Your task to perform on an android device: Go to sound settings Image 0: 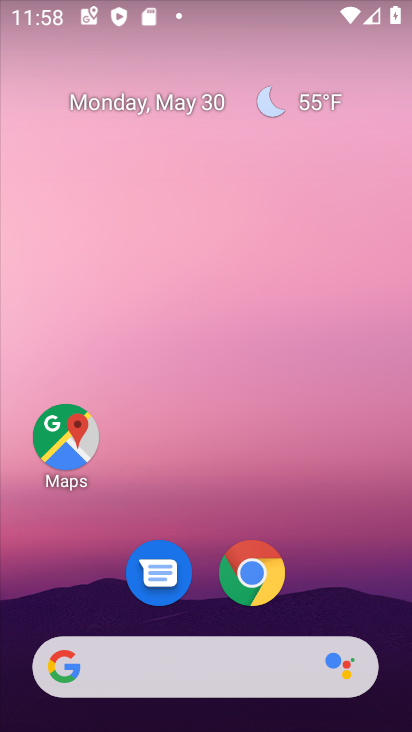
Step 0: drag from (323, 588) to (411, 310)
Your task to perform on an android device: Go to sound settings Image 1: 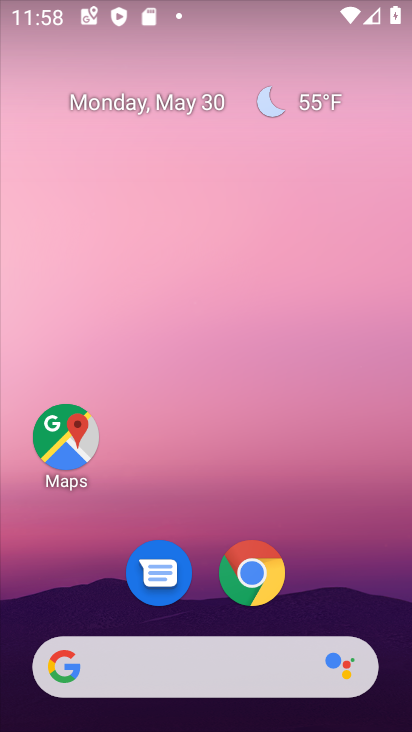
Step 1: drag from (313, 618) to (403, 4)
Your task to perform on an android device: Go to sound settings Image 2: 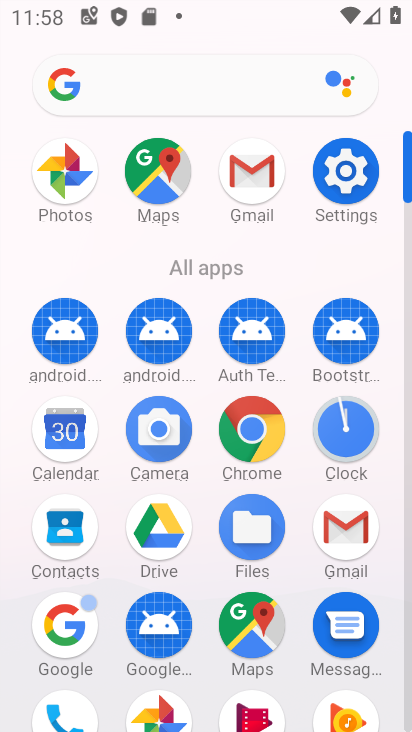
Step 2: click (350, 166)
Your task to perform on an android device: Go to sound settings Image 3: 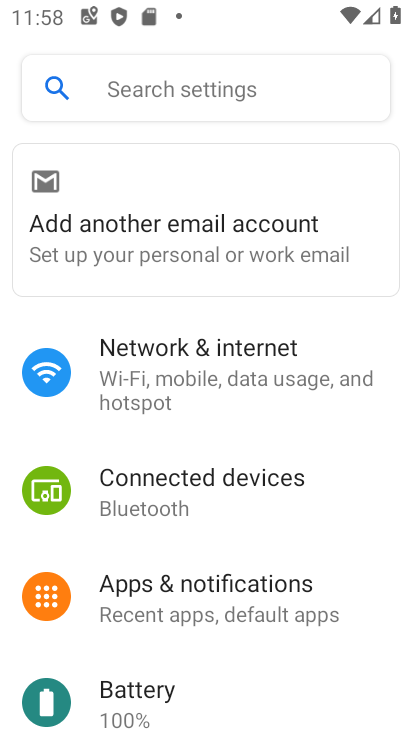
Step 3: drag from (205, 643) to (205, 325)
Your task to perform on an android device: Go to sound settings Image 4: 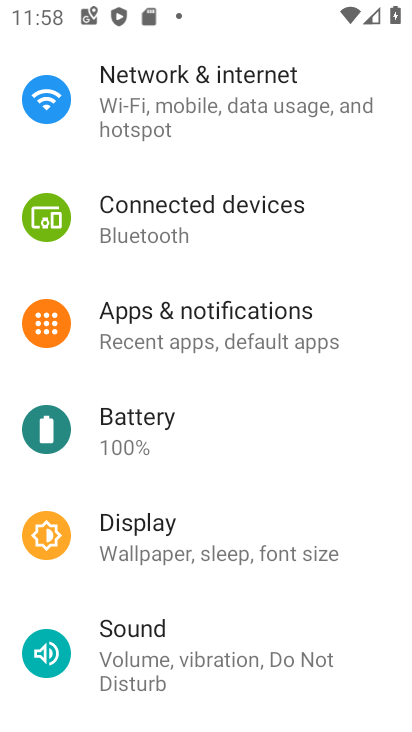
Step 4: click (180, 651)
Your task to perform on an android device: Go to sound settings Image 5: 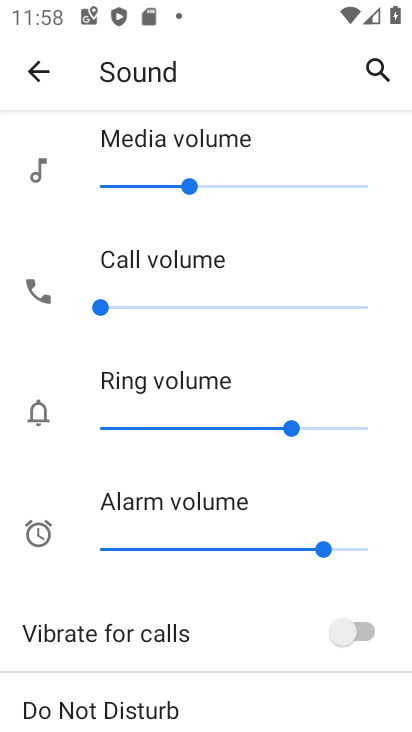
Step 5: task complete